Your task to perform on an android device: turn on wifi Image 0: 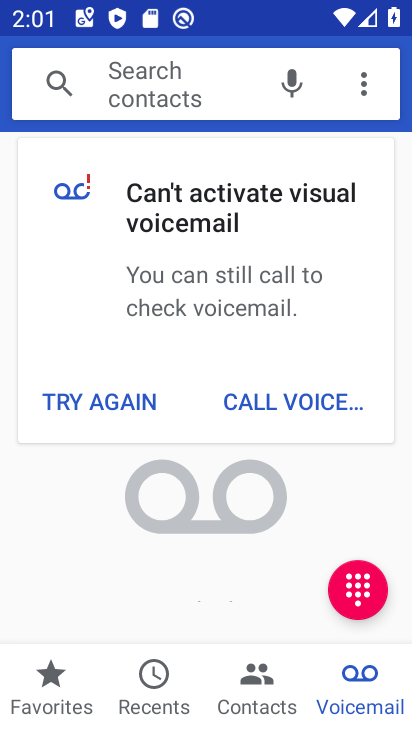
Step 0: press home button
Your task to perform on an android device: turn on wifi Image 1: 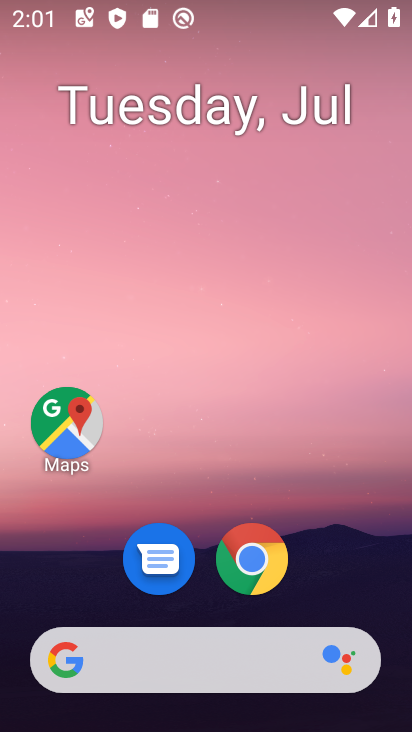
Step 1: drag from (369, 568) to (380, 178)
Your task to perform on an android device: turn on wifi Image 2: 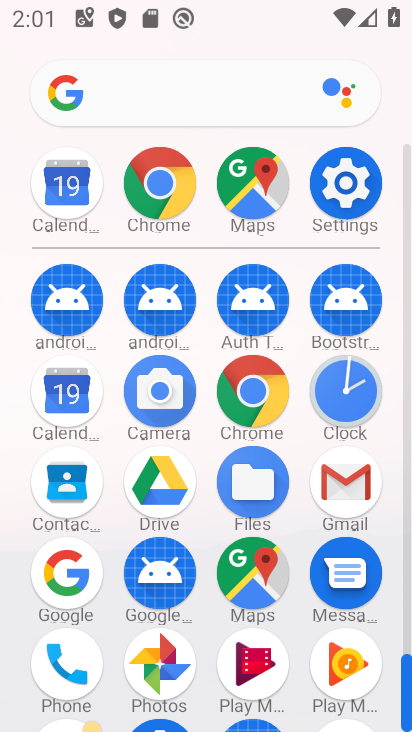
Step 2: click (352, 182)
Your task to perform on an android device: turn on wifi Image 3: 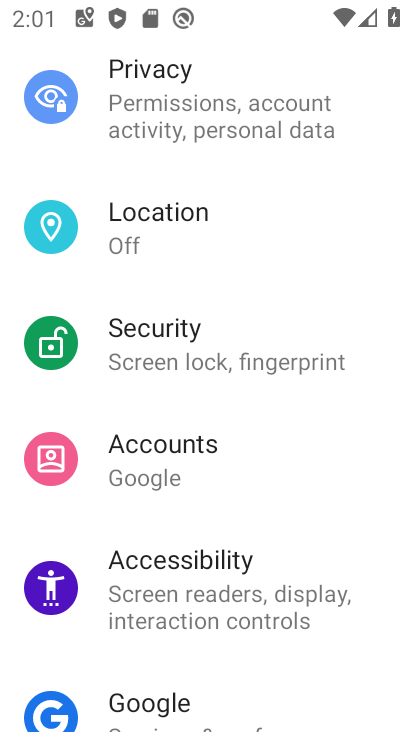
Step 3: drag from (352, 182) to (363, 261)
Your task to perform on an android device: turn on wifi Image 4: 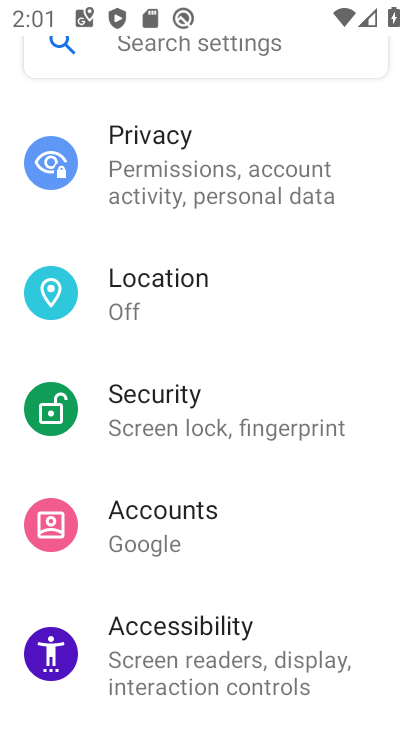
Step 4: drag from (369, 258) to (369, 338)
Your task to perform on an android device: turn on wifi Image 5: 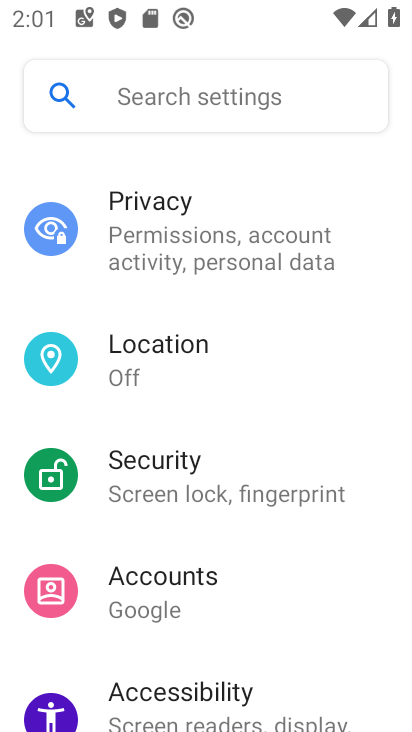
Step 5: drag from (364, 217) to (365, 299)
Your task to perform on an android device: turn on wifi Image 6: 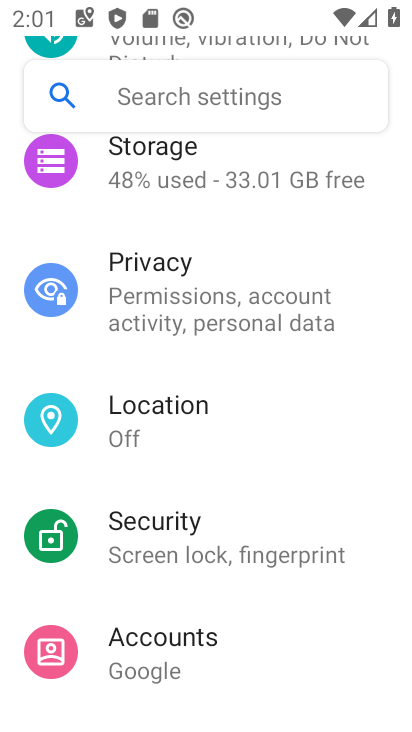
Step 6: drag from (365, 244) to (364, 315)
Your task to perform on an android device: turn on wifi Image 7: 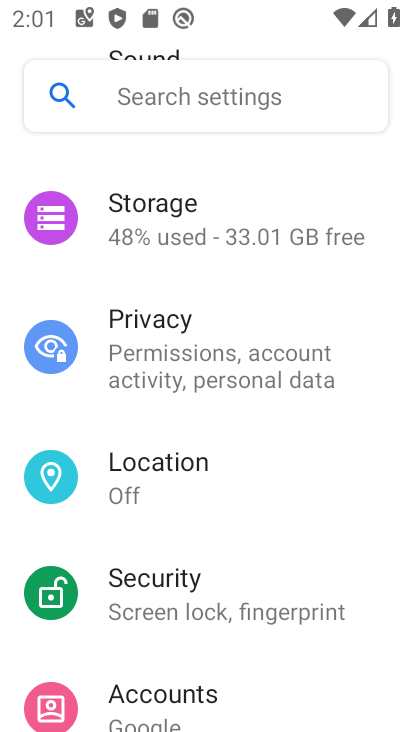
Step 7: drag from (369, 193) to (370, 271)
Your task to perform on an android device: turn on wifi Image 8: 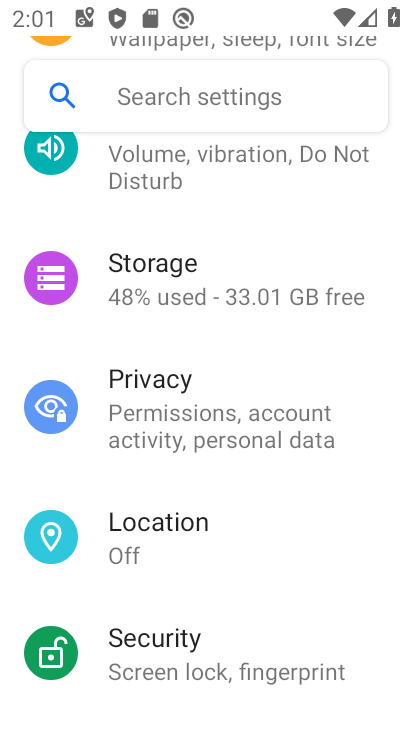
Step 8: drag from (370, 203) to (376, 280)
Your task to perform on an android device: turn on wifi Image 9: 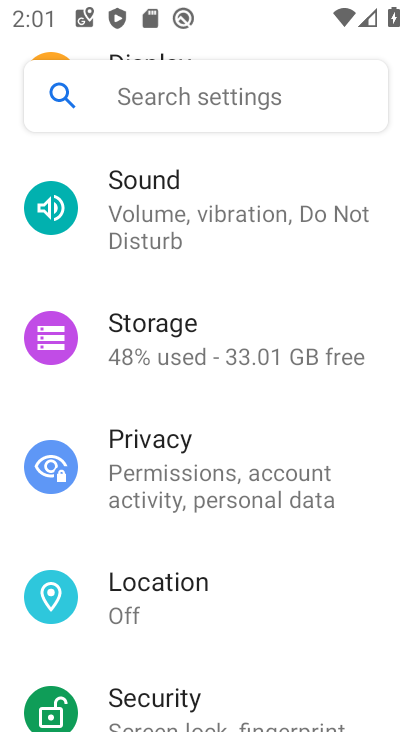
Step 9: drag from (380, 185) to (375, 297)
Your task to perform on an android device: turn on wifi Image 10: 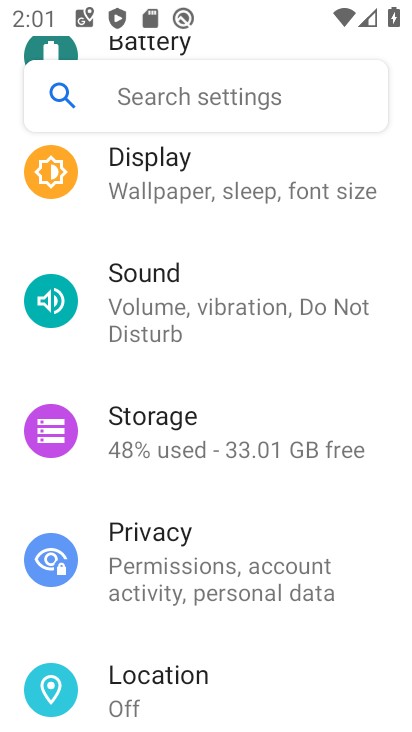
Step 10: drag from (369, 224) to (371, 319)
Your task to perform on an android device: turn on wifi Image 11: 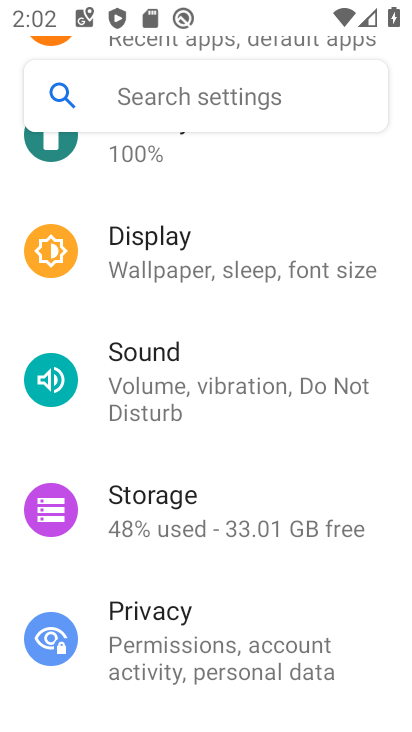
Step 11: drag from (366, 194) to (367, 332)
Your task to perform on an android device: turn on wifi Image 12: 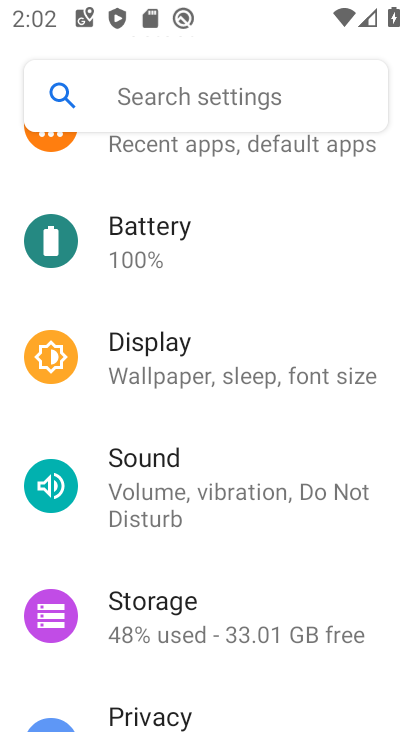
Step 12: drag from (371, 210) to (372, 304)
Your task to perform on an android device: turn on wifi Image 13: 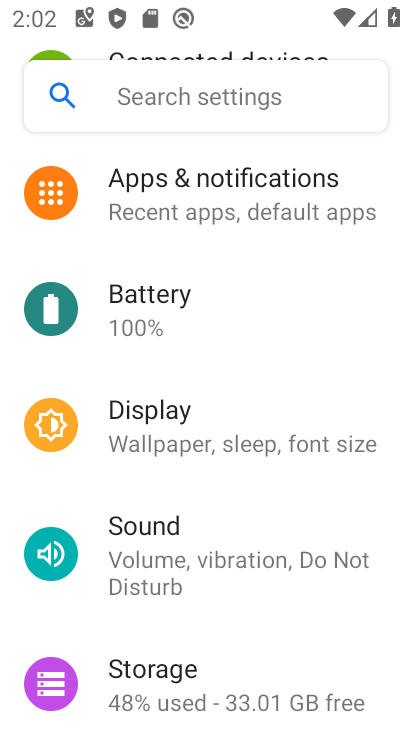
Step 13: drag from (392, 175) to (391, 285)
Your task to perform on an android device: turn on wifi Image 14: 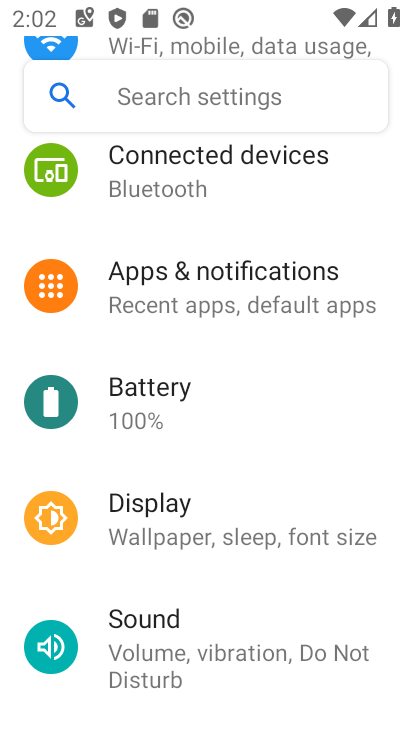
Step 14: drag from (372, 197) to (370, 280)
Your task to perform on an android device: turn on wifi Image 15: 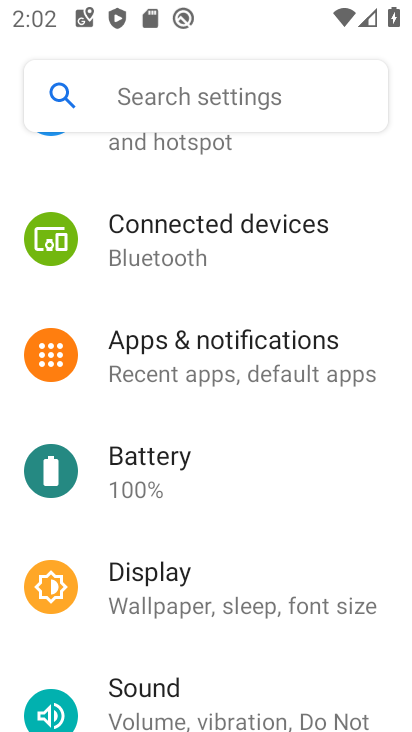
Step 15: drag from (362, 188) to (364, 293)
Your task to perform on an android device: turn on wifi Image 16: 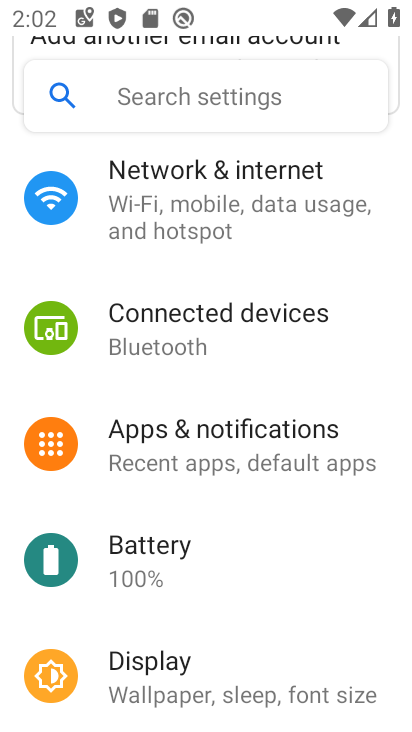
Step 16: click (305, 185)
Your task to perform on an android device: turn on wifi Image 17: 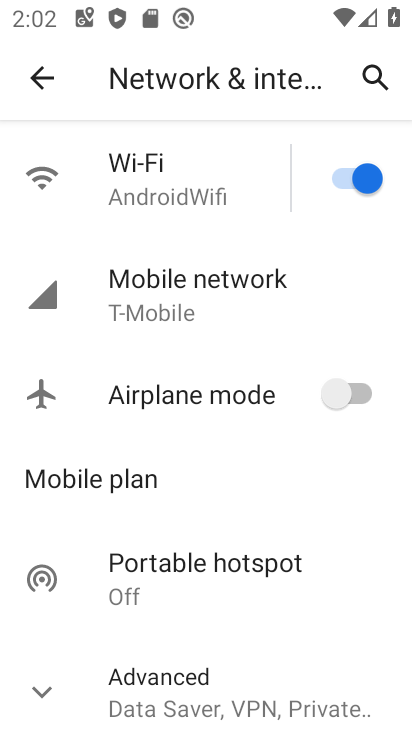
Step 17: task complete